Your task to perform on an android device: Is it going to rain today? Image 0: 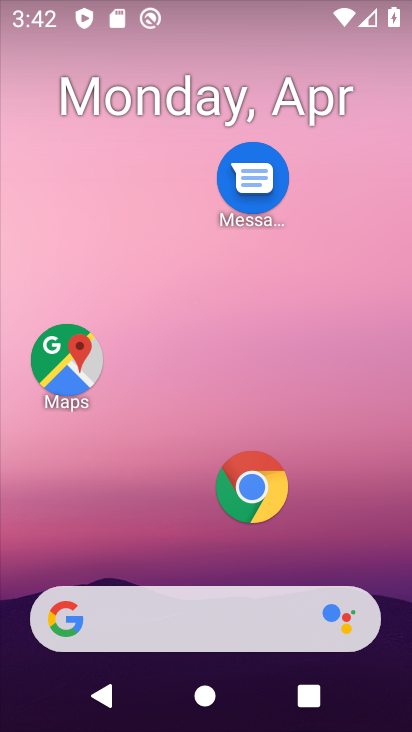
Step 0: click (108, 622)
Your task to perform on an android device: Is it going to rain today? Image 1: 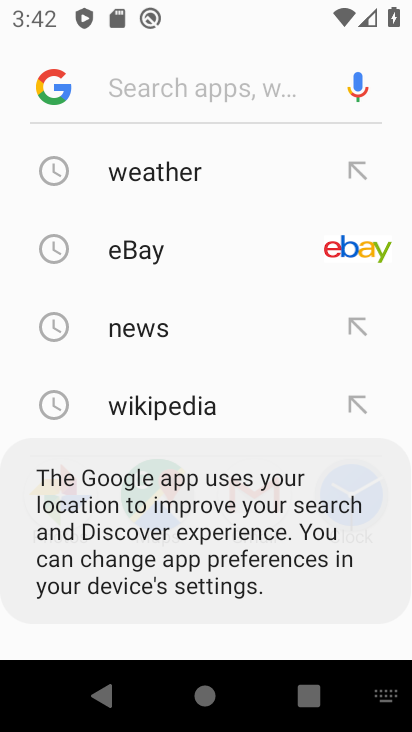
Step 1: click (169, 164)
Your task to perform on an android device: Is it going to rain today? Image 2: 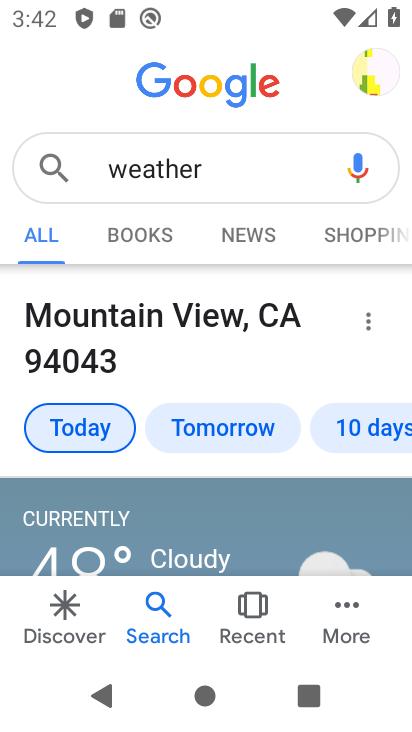
Step 2: task complete